Your task to perform on an android device: Set the phone to "Do not disturb". Image 0: 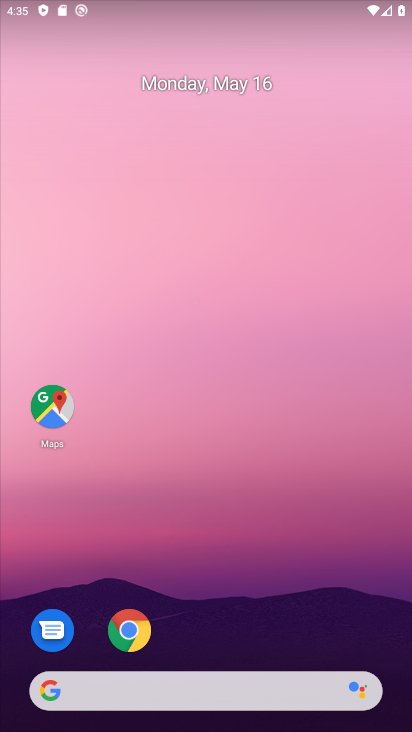
Step 0: press home button
Your task to perform on an android device: Set the phone to "Do not disturb". Image 1: 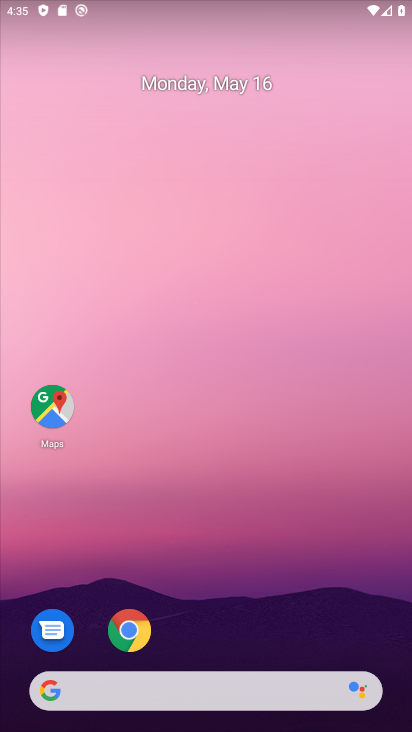
Step 1: drag from (361, 10) to (161, 680)
Your task to perform on an android device: Set the phone to "Do not disturb". Image 2: 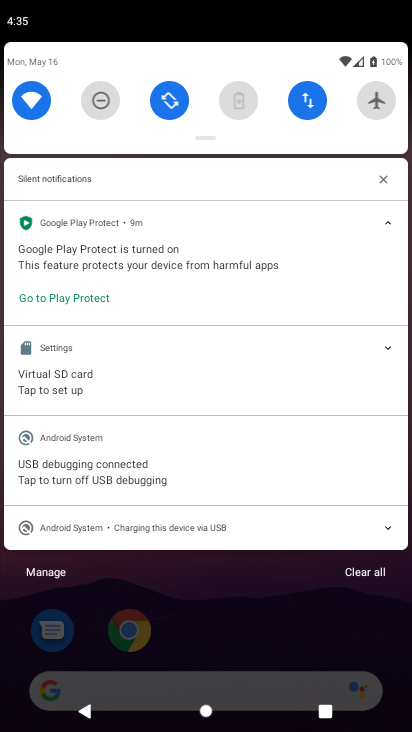
Step 2: click (96, 104)
Your task to perform on an android device: Set the phone to "Do not disturb". Image 3: 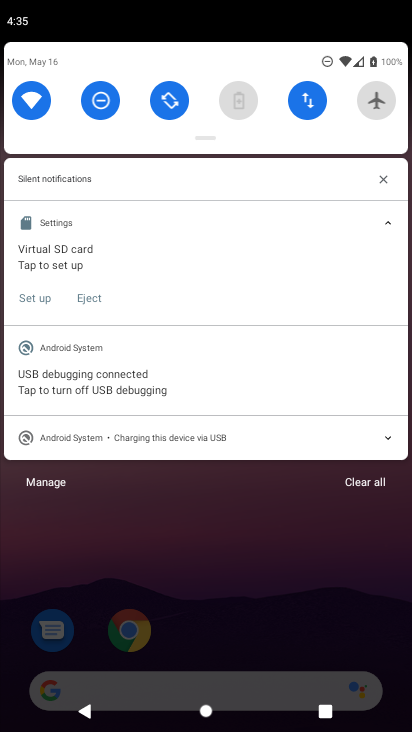
Step 3: task complete